Your task to perform on an android device: check android version Image 0: 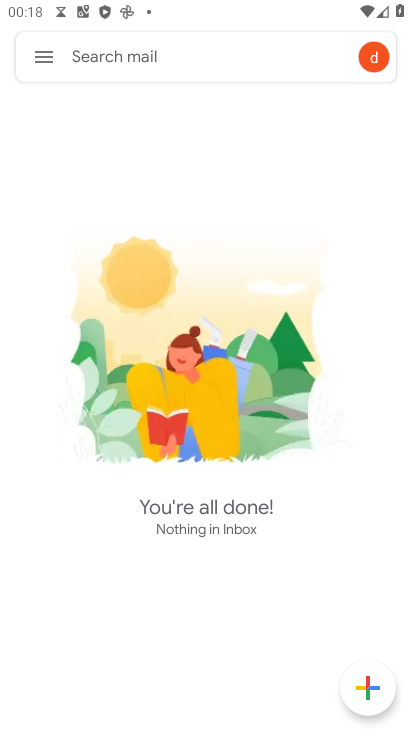
Step 0: press back button
Your task to perform on an android device: check android version Image 1: 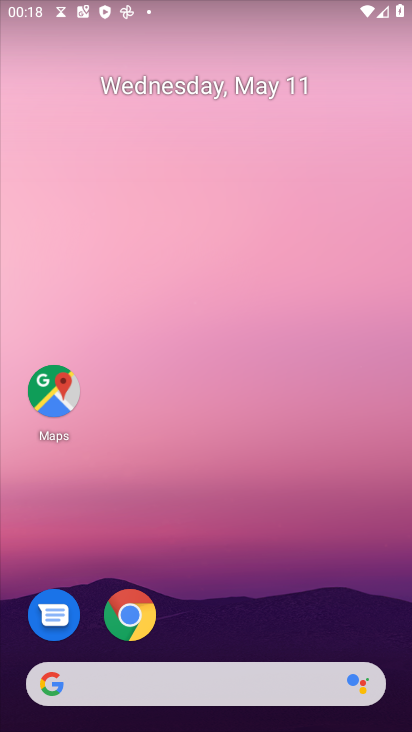
Step 1: drag from (258, 539) to (219, 59)
Your task to perform on an android device: check android version Image 2: 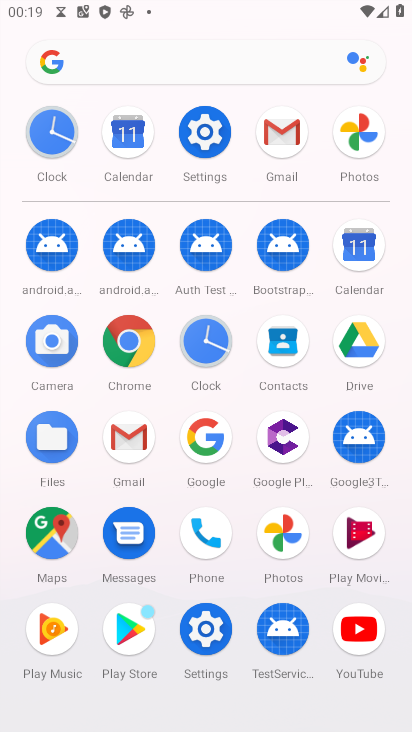
Step 2: click (207, 131)
Your task to perform on an android device: check android version Image 3: 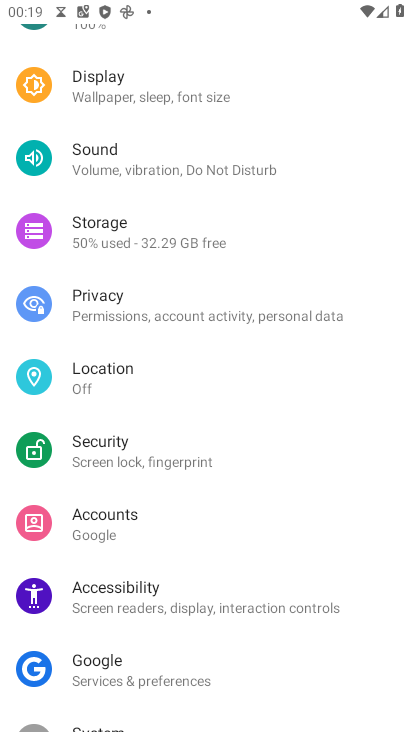
Step 3: drag from (220, 523) to (265, 362)
Your task to perform on an android device: check android version Image 4: 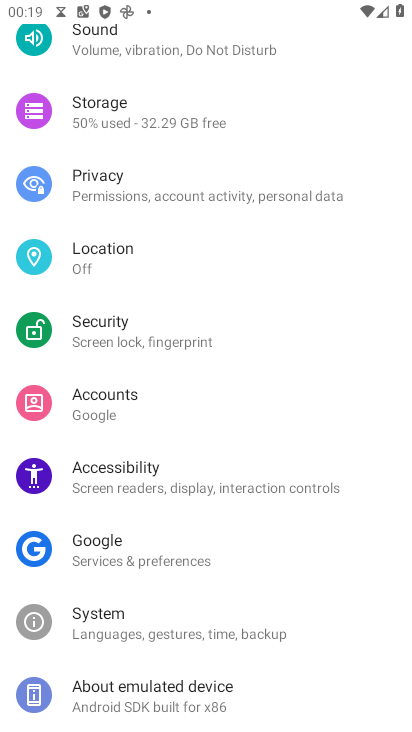
Step 4: click (130, 677)
Your task to perform on an android device: check android version Image 5: 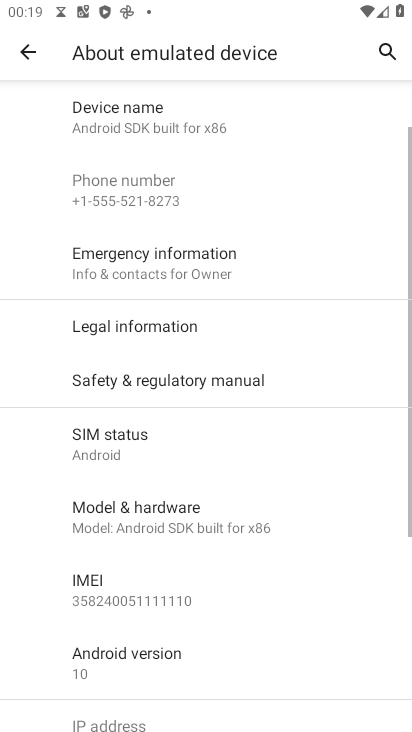
Step 5: drag from (174, 483) to (208, 396)
Your task to perform on an android device: check android version Image 6: 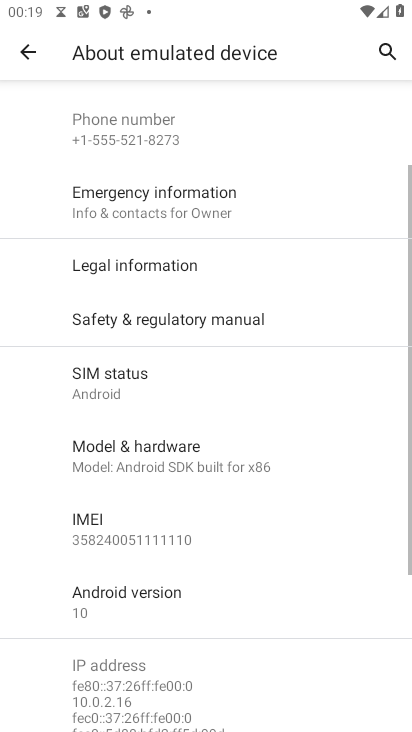
Step 6: click (101, 596)
Your task to perform on an android device: check android version Image 7: 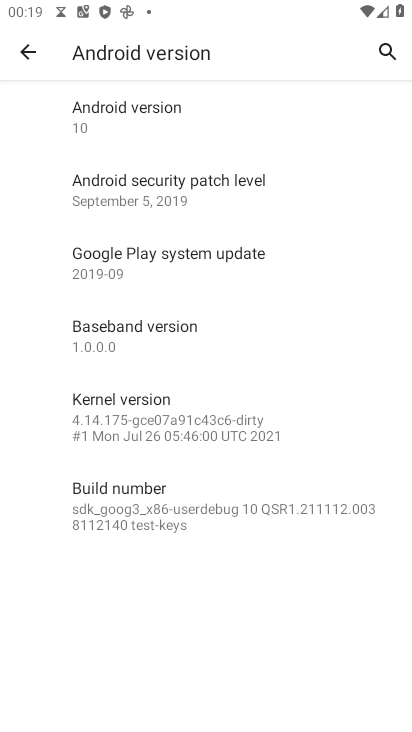
Step 7: task complete